Your task to perform on an android device: change text size in settings app Image 0: 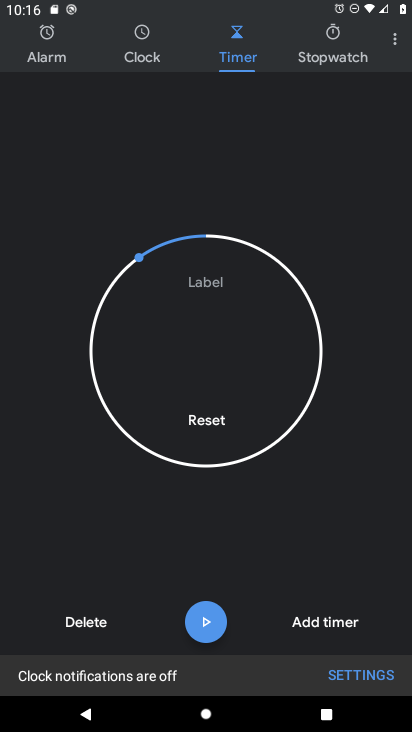
Step 0: press home button
Your task to perform on an android device: change text size in settings app Image 1: 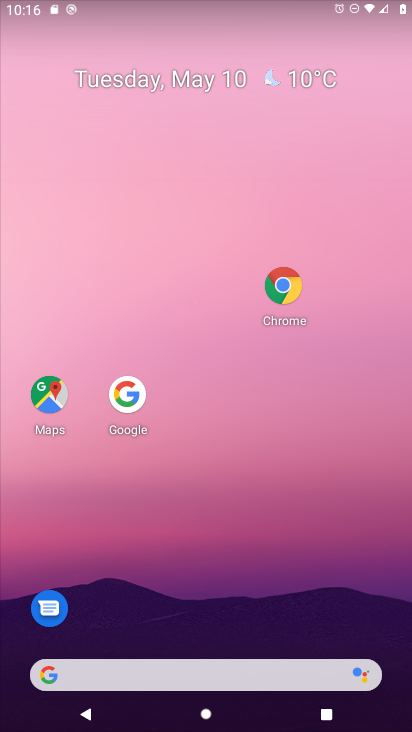
Step 1: drag from (153, 668) to (269, 276)
Your task to perform on an android device: change text size in settings app Image 2: 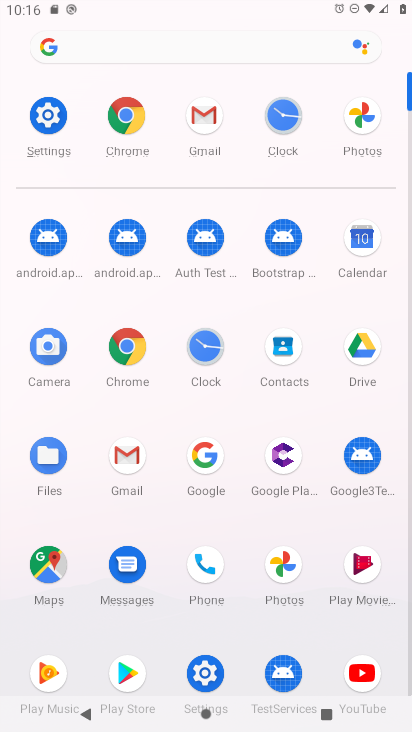
Step 2: click (44, 129)
Your task to perform on an android device: change text size in settings app Image 3: 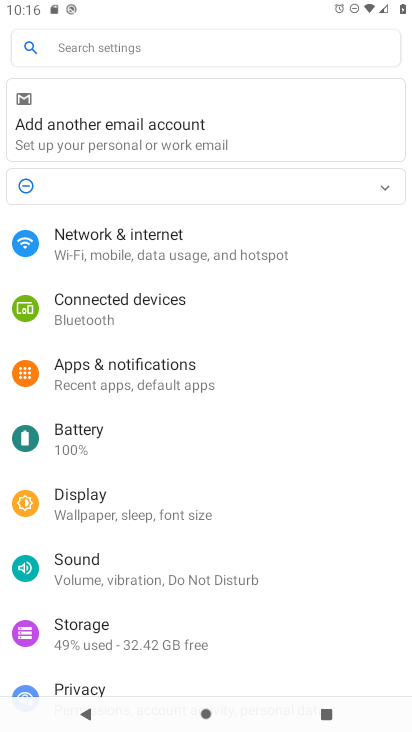
Step 3: drag from (156, 625) to (295, 200)
Your task to perform on an android device: change text size in settings app Image 4: 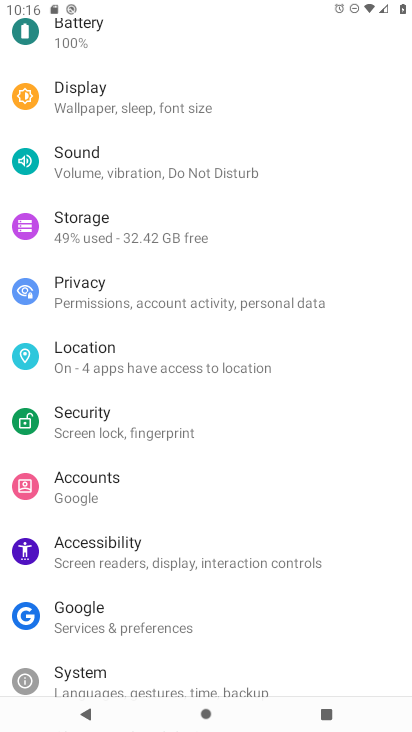
Step 4: click (111, 108)
Your task to perform on an android device: change text size in settings app Image 5: 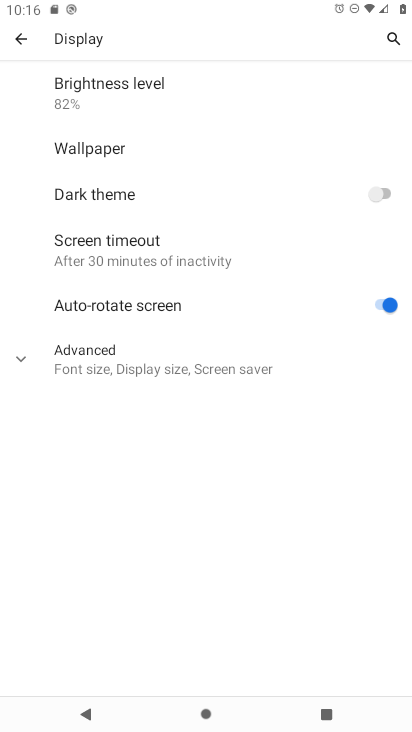
Step 5: click (113, 366)
Your task to perform on an android device: change text size in settings app Image 6: 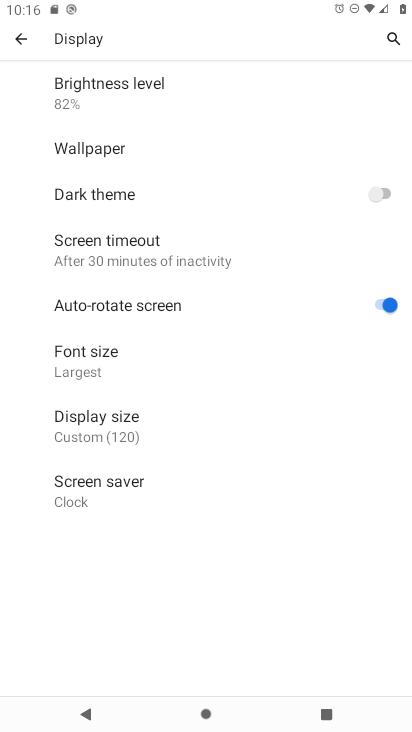
Step 6: click (92, 354)
Your task to perform on an android device: change text size in settings app Image 7: 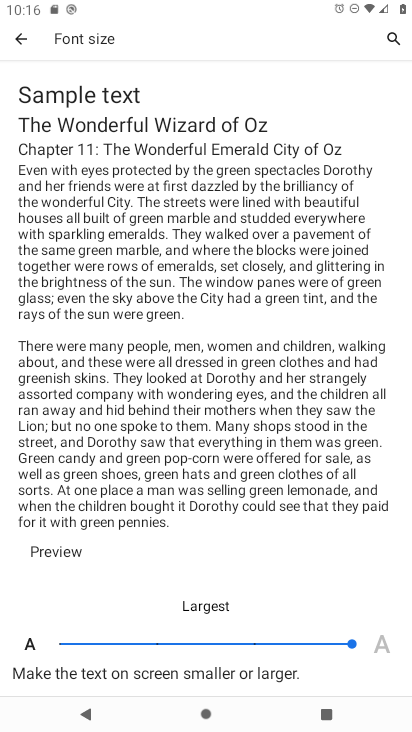
Step 7: click (312, 641)
Your task to perform on an android device: change text size in settings app Image 8: 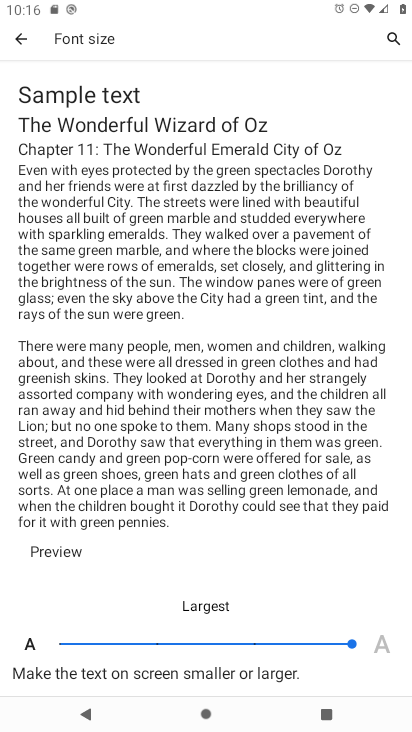
Step 8: click (248, 646)
Your task to perform on an android device: change text size in settings app Image 9: 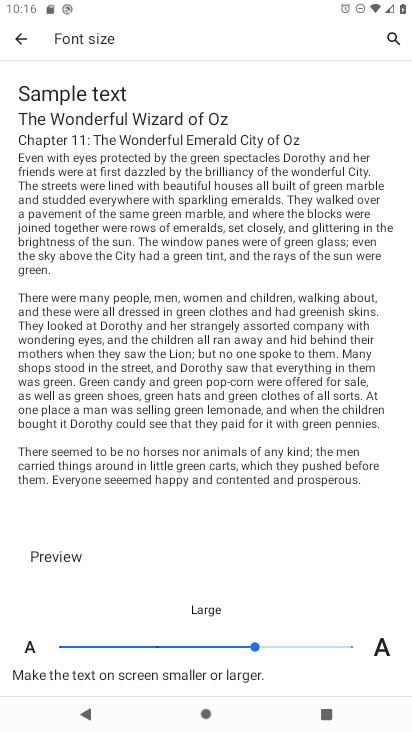
Step 9: task complete